Your task to perform on an android device: Open Google Chrome Image 0: 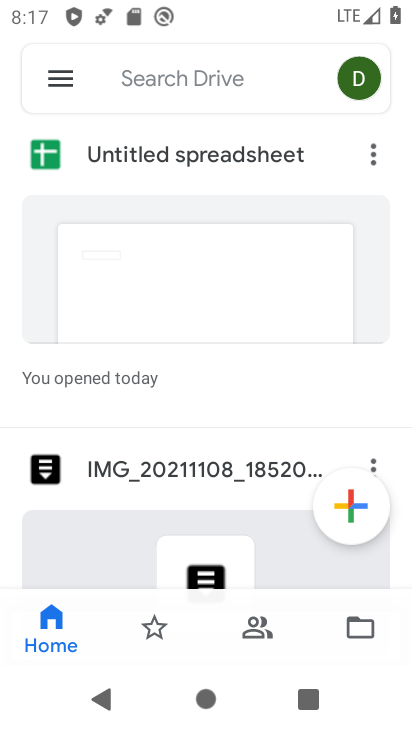
Step 0: press home button
Your task to perform on an android device: Open Google Chrome Image 1: 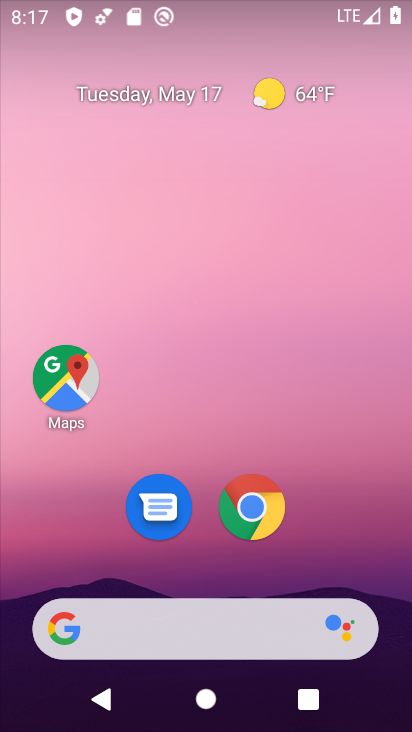
Step 1: drag from (337, 533) to (248, 25)
Your task to perform on an android device: Open Google Chrome Image 2: 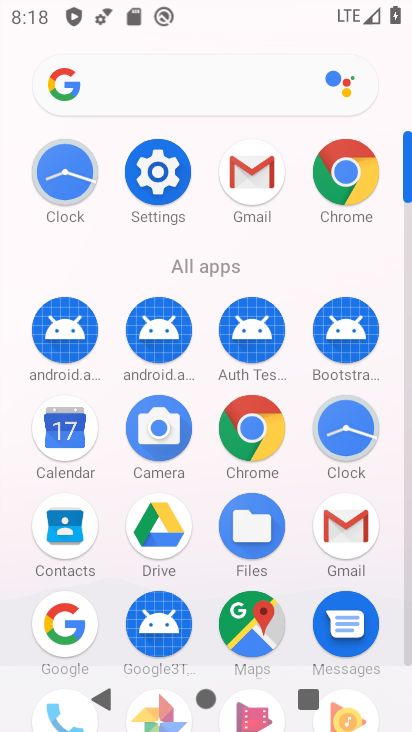
Step 2: click (346, 174)
Your task to perform on an android device: Open Google Chrome Image 3: 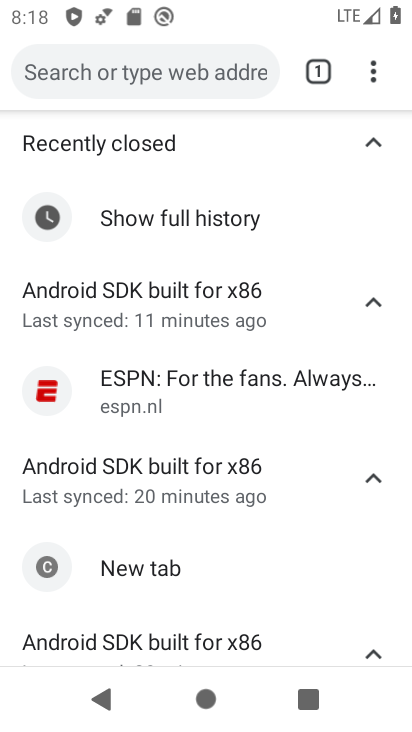
Step 3: task complete